Your task to perform on an android device: Open accessibility settings Image 0: 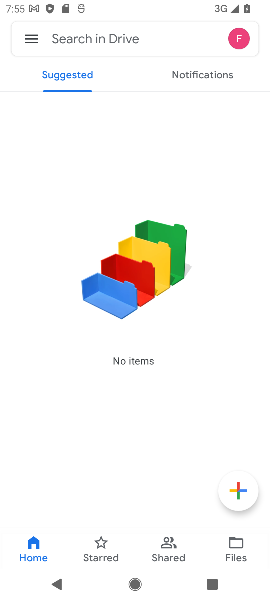
Step 0: press home button
Your task to perform on an android device: Open accessibility settings Image 1: 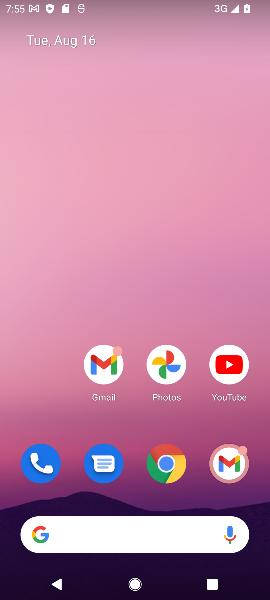
Step 1: drag from (128, 481) to (117, 174)
Your task to perform on an android device: Open accessibility settings Image 2: 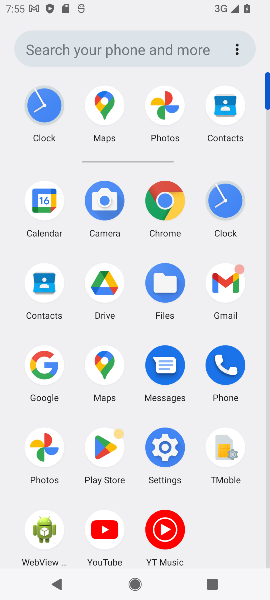
Step 2: click (165, 456)
Your task to perform on an android device: Open accessibility settings Image 3: 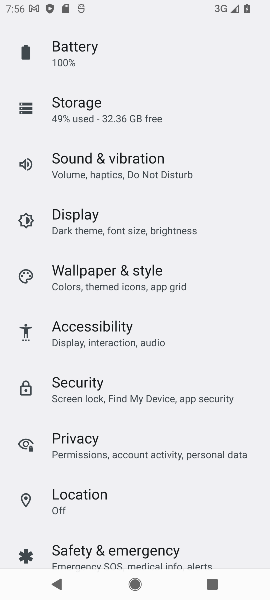
Step 3: click (120, 339)
Your task to perform on an android device: Open accessibility settings Image 4: 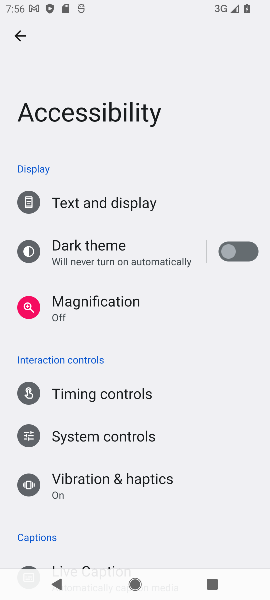
Step 4: task complete